Your task to perform on an android device: Turn off the flashlight Image 0: 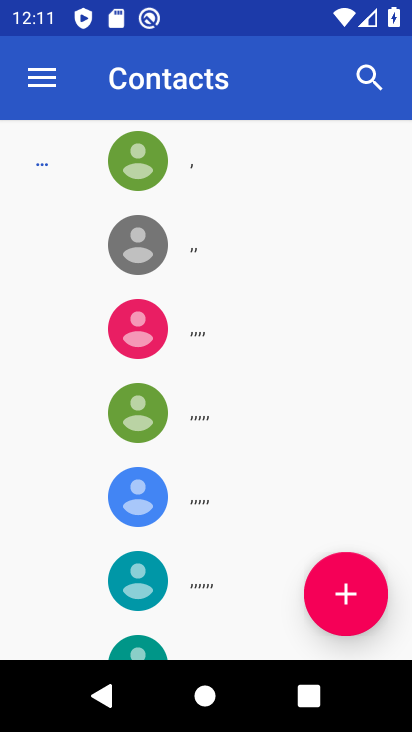
Step 0: press back button
Your task to perform on an android device: Turn off the flashlight Image 1: 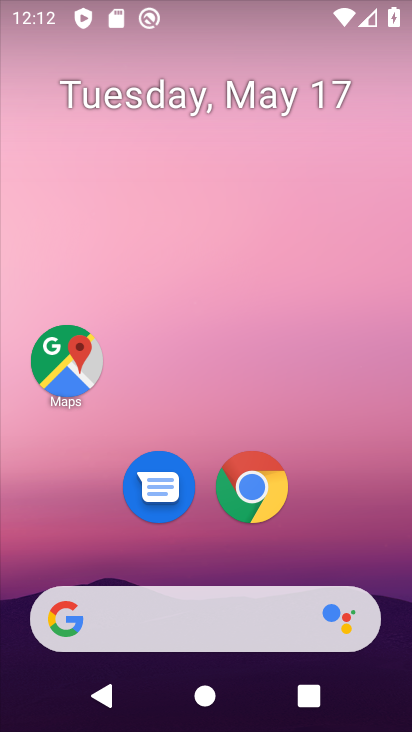
Step 1: drag from (348, 504) to (255, 23)
Your task to perform on an android device: Turn off the flashlight Image 2: 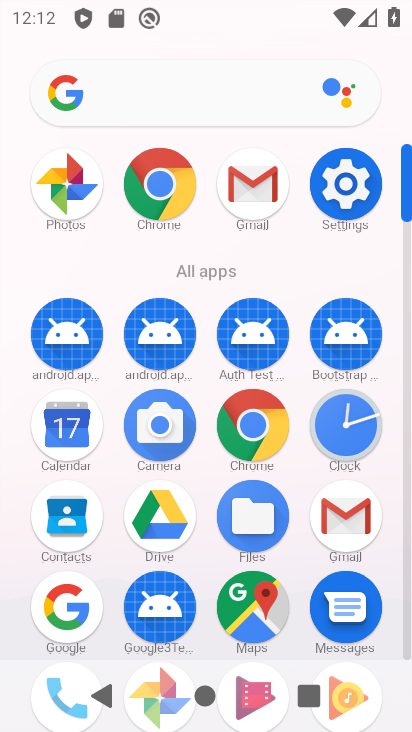
Step 2: drag from (8, 525) to (5, 244)
Your task to perform on an android device: Turn off the flashlight Image 3: 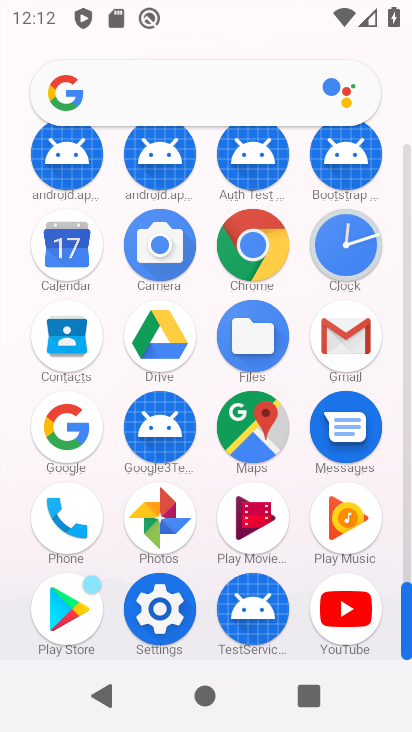
Step 3: click (158, 607)
Your task to perform on an android device: Turn off the flashlight Image 4: 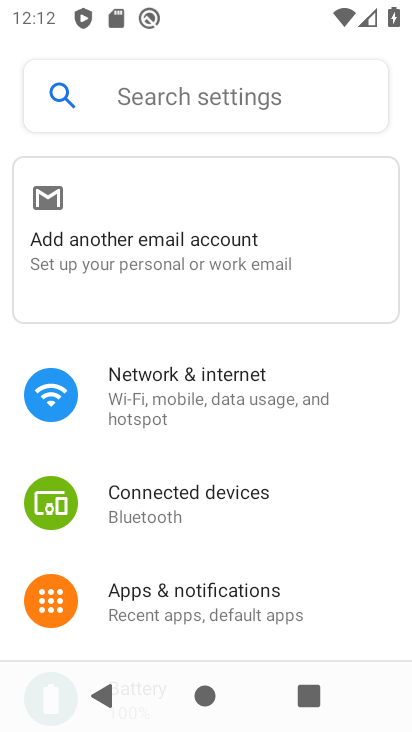
Step 4: click (230, 383)
Your task to perform on an android device: Turn off the flashlight Image 5: 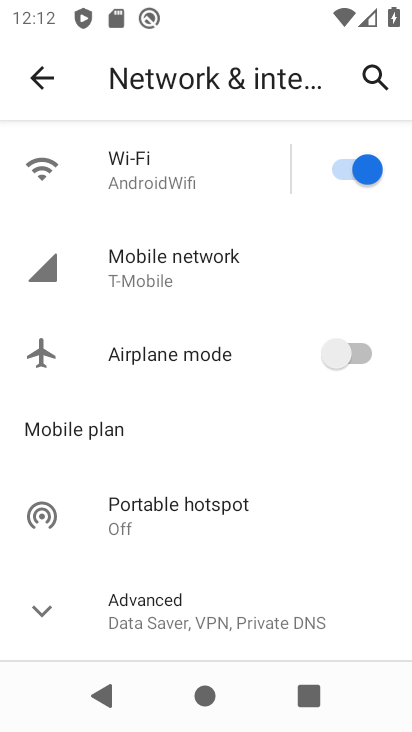
Step 5: click (57, 600)
Your task to perform on an android device: Turn off the flashlight Image 6: 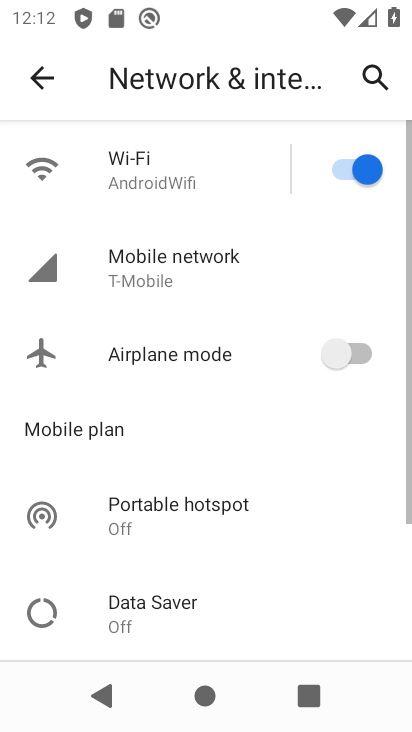
Step 6: task complete